Your task to perform on an android device: check google app version Image 0: 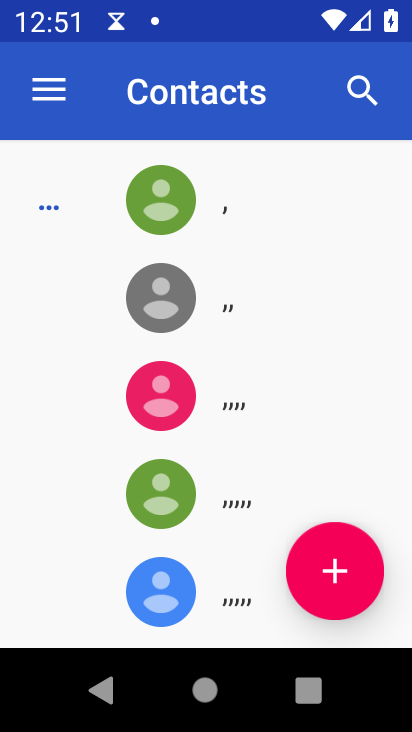
Step 0: press back button
Your task to perform on an android device: check google app version Image 1: 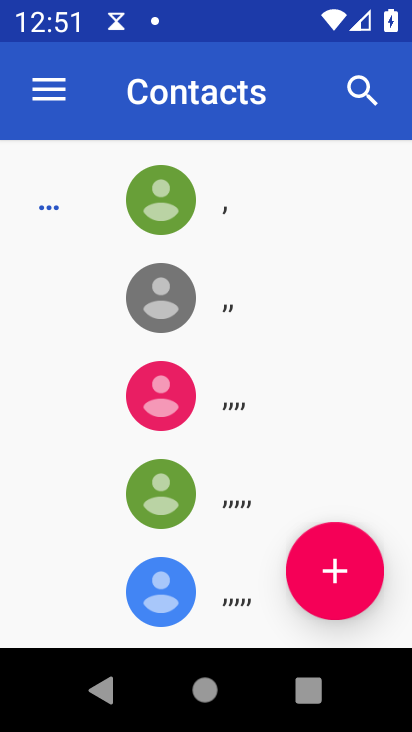
Step 1: press back button
Your task to perform on an android device: check google app version Image 2: 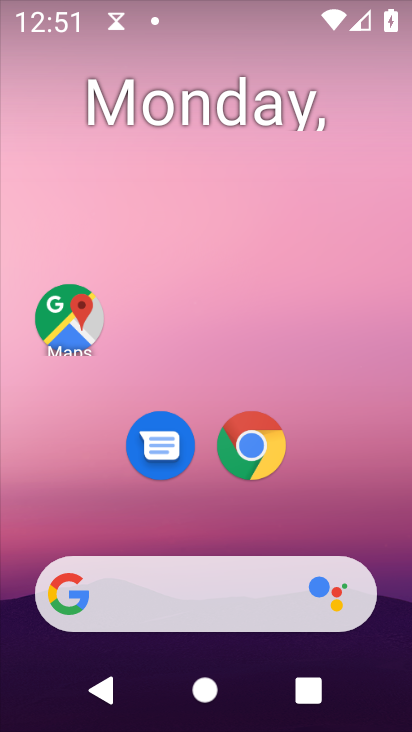
Step 2: drag from (378, 593) to (176, 117)
Your task to perform on an android device: check google app version Image 3: 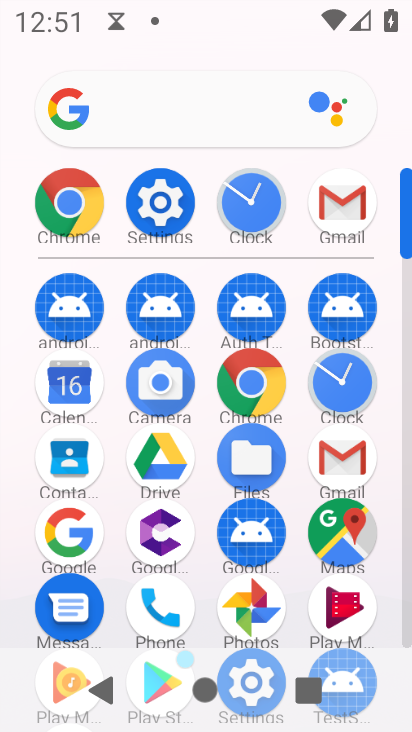
Step 3: click (72, 531)
Your task to perform on an android device: check google app version Image 4: 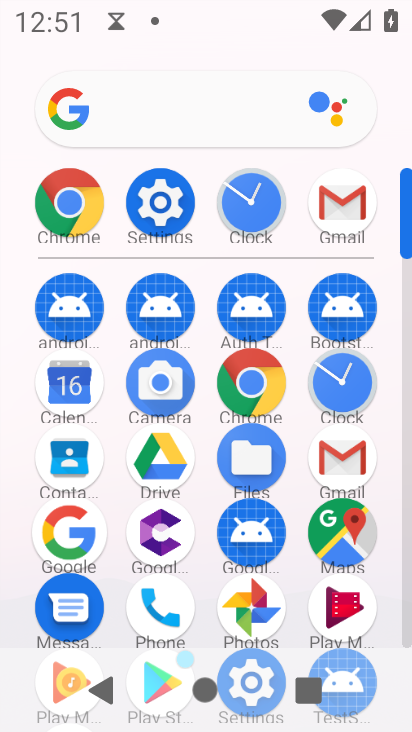
Step 4: click (73, 530)
Your task to perform on an android device: check google app version Image 5: 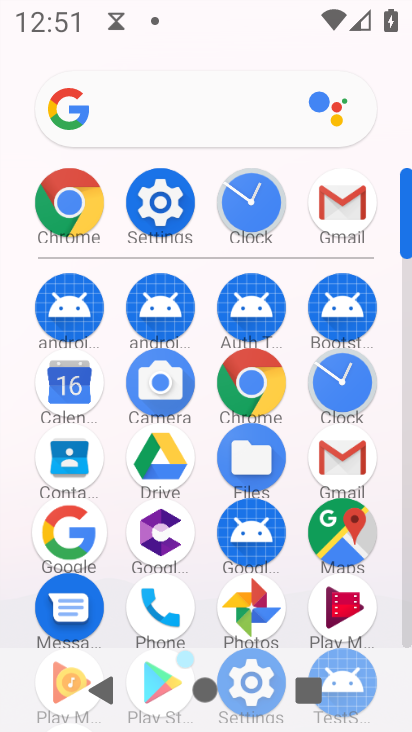
Step 5: click (74, 529)
Your task to perform on an android device: check google app version Image 6: 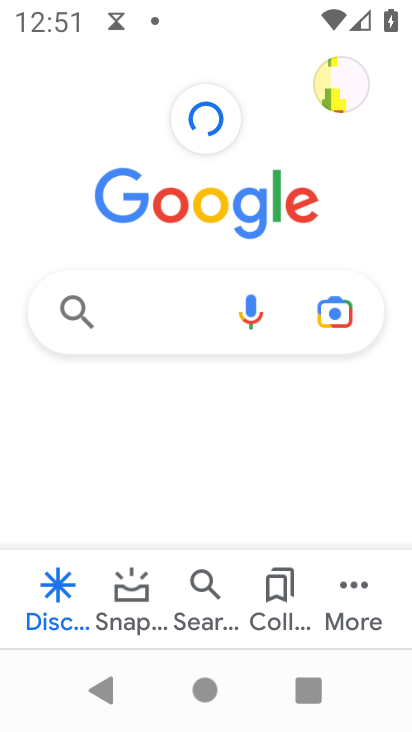
Step 6: click (341, 592)
Your task to perform on an android device: check google app version Image 7: 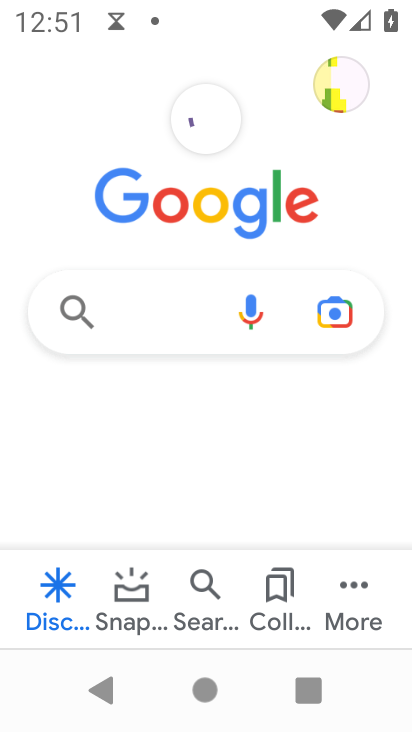
Step 7: click (342, 591)
Your task to perform on an android device: check google app version Image 8: 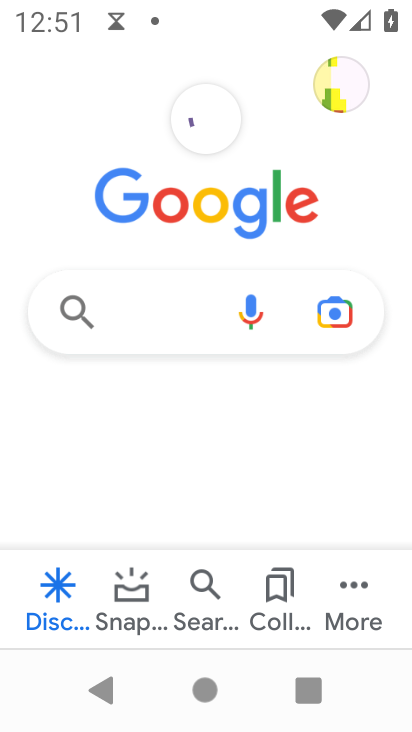
Step 8: click (346, 586)
Your task to perform on an android device: check google app version Image 9: 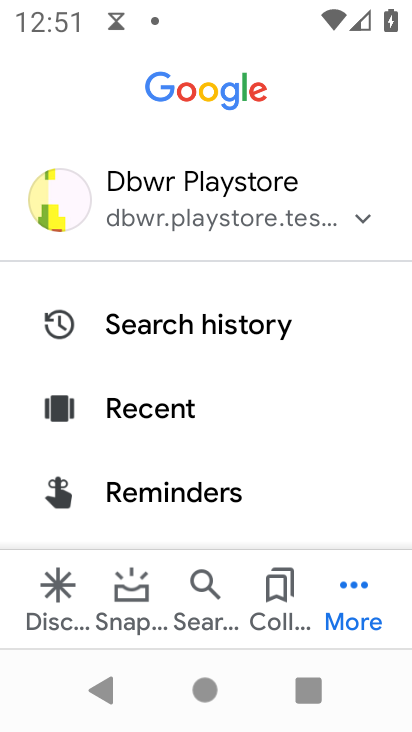
Step 9: click (345, 581)
Your task to perform on an android device: check google app version Image 10: 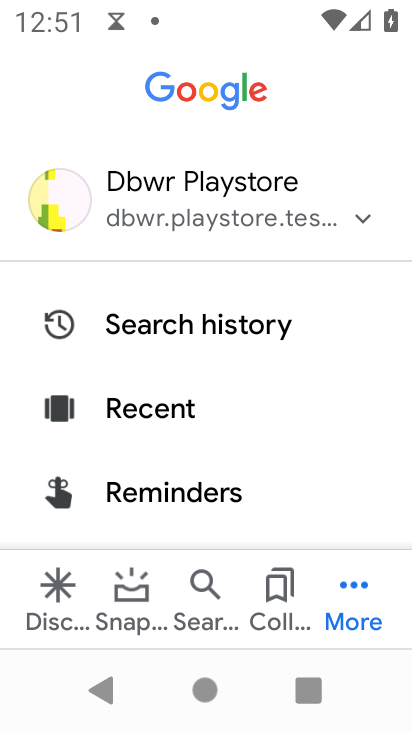
Step 10: drag from (262, 434) to (242, 157)
Your task to perform on an android device: check google app version Image 11: 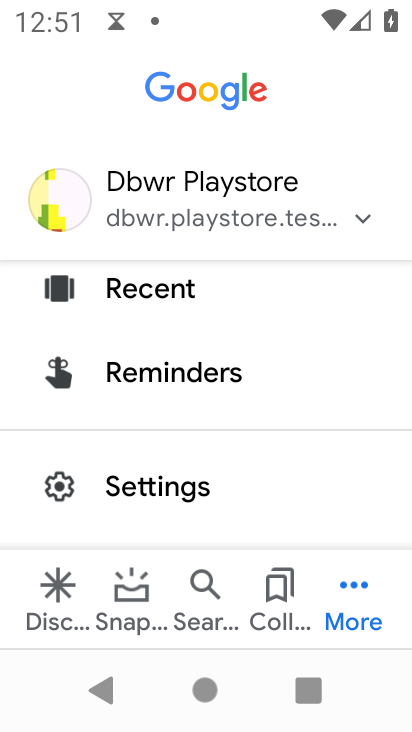
Step 11: drag from (239, 312) to (287, 60)
Your task to perform on an android device: check google app version Image 12: 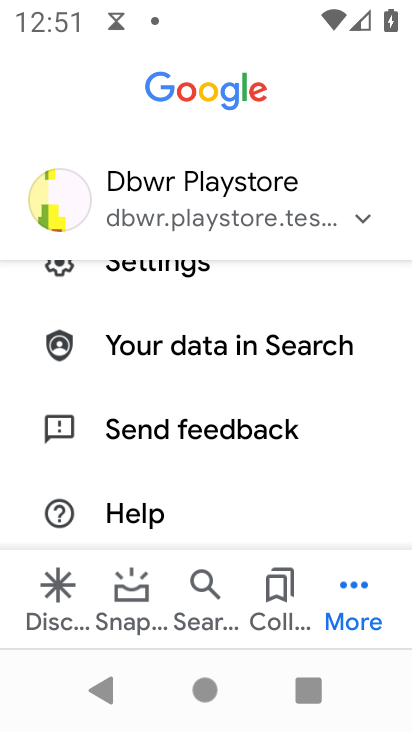
Step 12: drag from (235, 365) to (267, 202)
Your task to perform on an android device: check google app version Image 13: 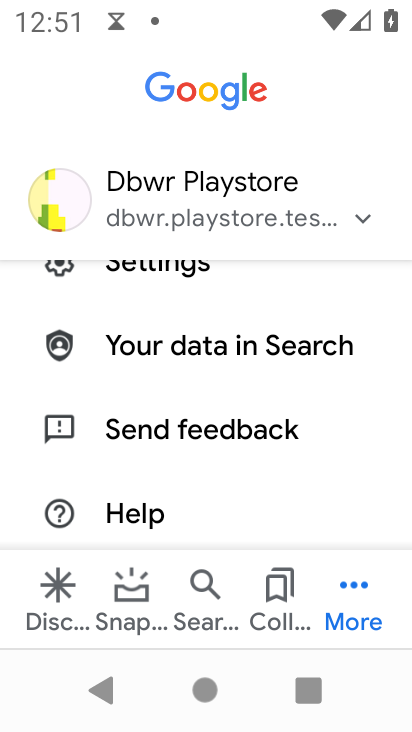
Step 13: drag from (255, 339) to (291, 157)
Your task to perform on an android device: check google app version Image 14: 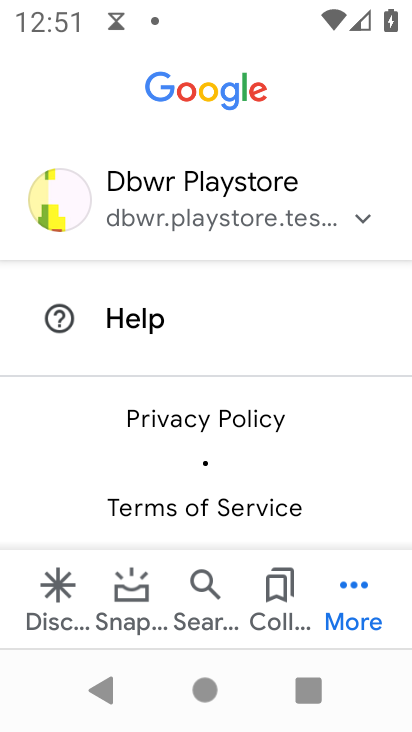
Step 14: drag from (204, 308) to (219, 542)
Your task to perform on an android device: check google app version Image 15: 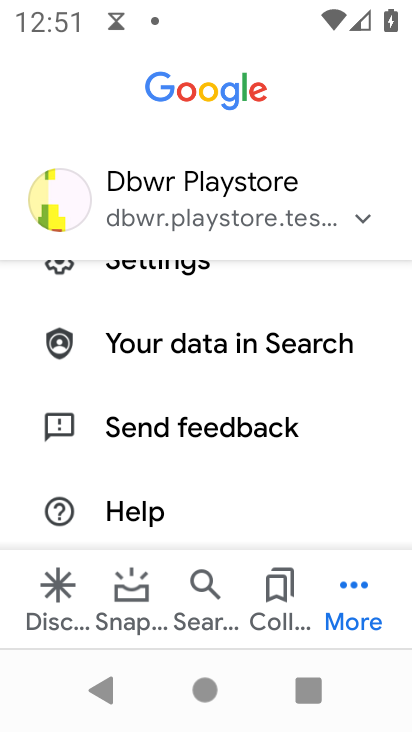
Step 15: drag from (198, 362) to (198, 491)
Your task to perform on an android device: check google app version Image 16: 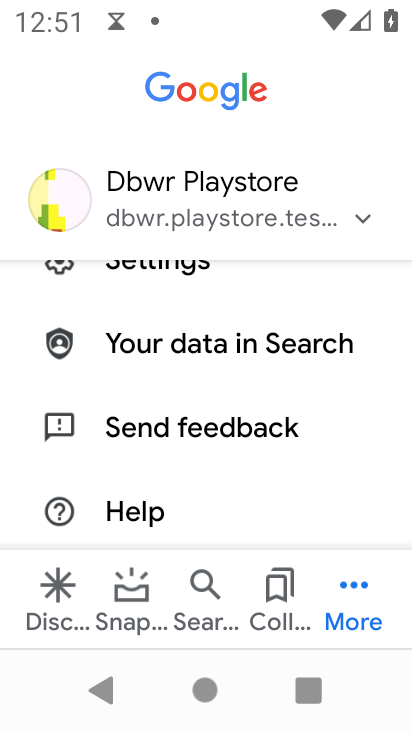
Step 16: drag from (206, 288) to (280, 545)
Your task to perform on an android device: check google app version Image 17: 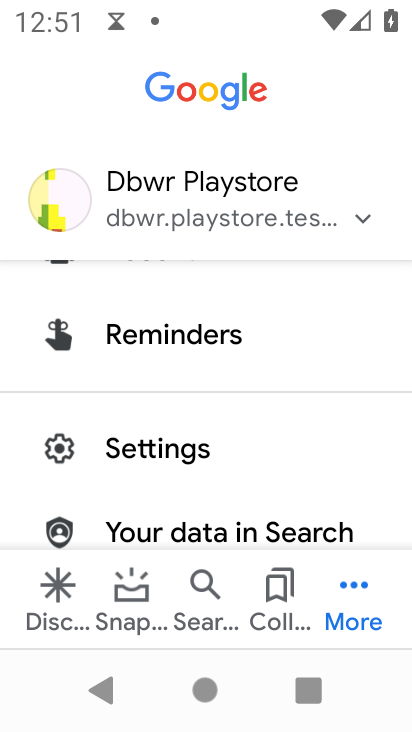
Step 17: drag from (314, 320) to (371, 499)
Your task to perform on an android device: check google app version Image 18: 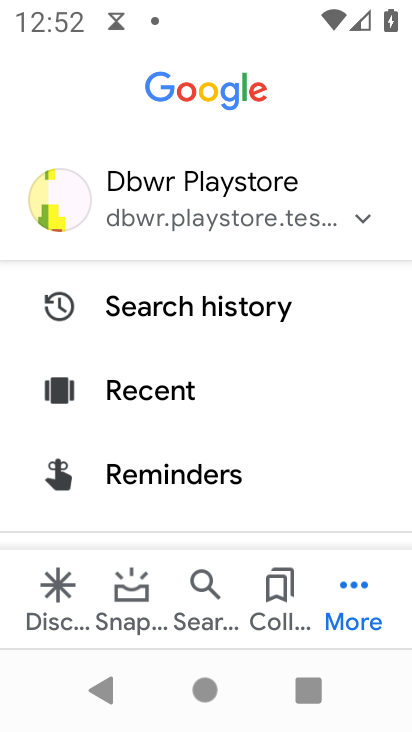
Step 18: drag from (212, 341) to (252, 575)
Your task to perform on an android device: check google app version Image 19: 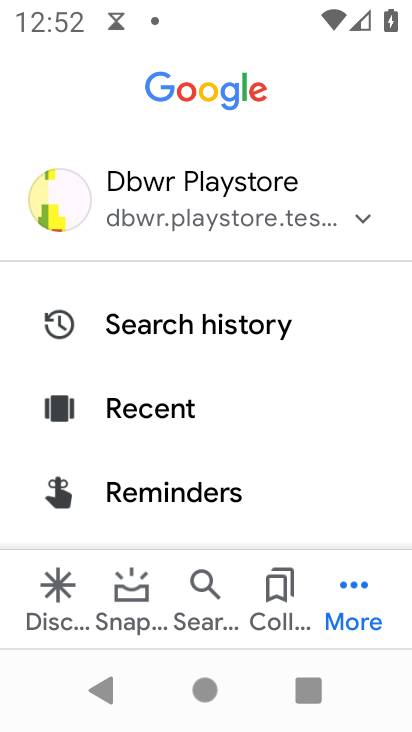
Step 19: drag from (257, 373) to (299, 508)
Your task to perform on an android device: check google app version Image 20: 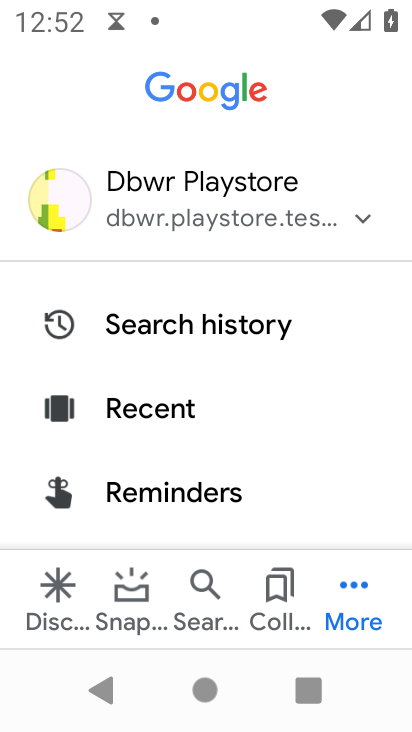
Step 20: drag from (315, 564) to (277, 345)
Your task to perform on an android device: check google app version Image 21: 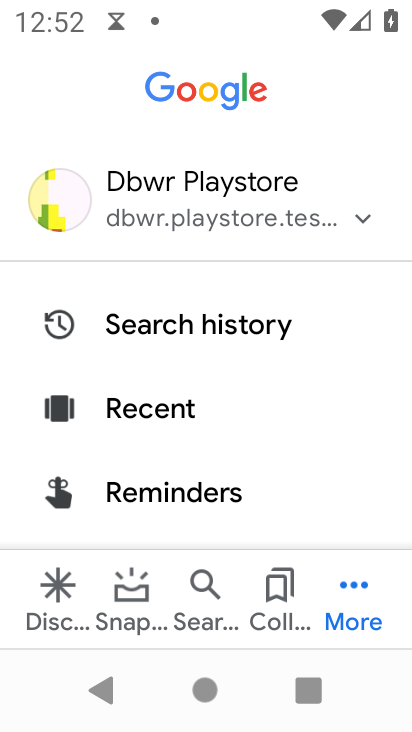
Step 21: drag from (312, 475) to (247, 279)
Your task to perform on an android device: check google app version Image 22: 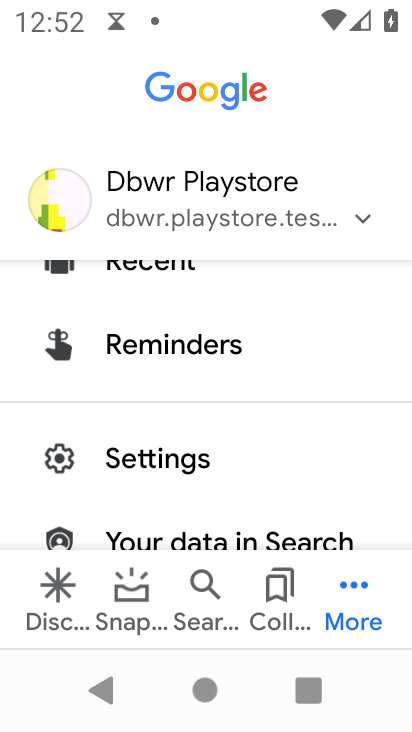
Step 22: drag from (273, 478) to (245, 283)
Your task to perform on an android device: check google app version Image 23: 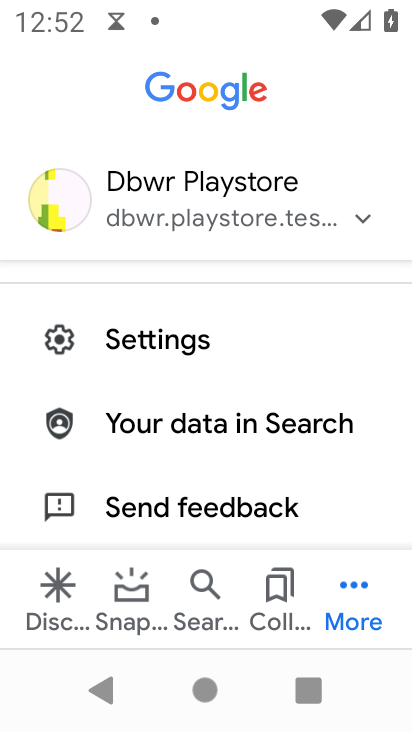
Step 23: click (339, 584)
Your task to perform on an android device: check google app version Image 24: 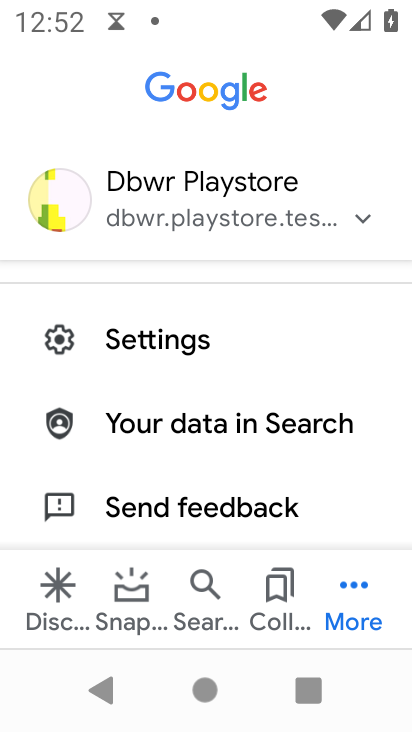
Step 24: click (339, 585)
Your task to perform on an android device: check google app version Image 25: 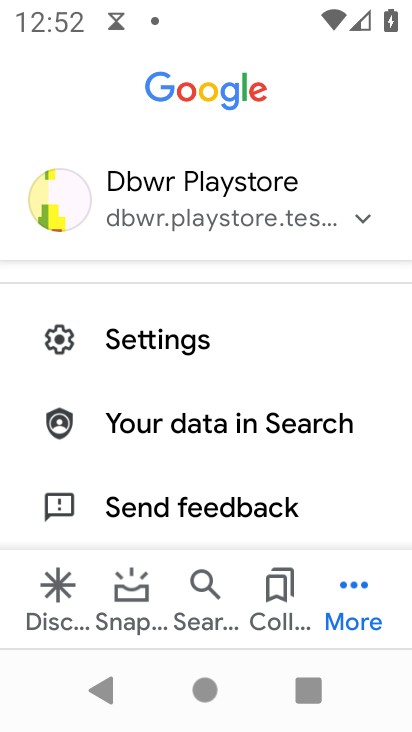
Step 25: click (341, 587)
Your task to perform on an android device: check google app version Image 26: 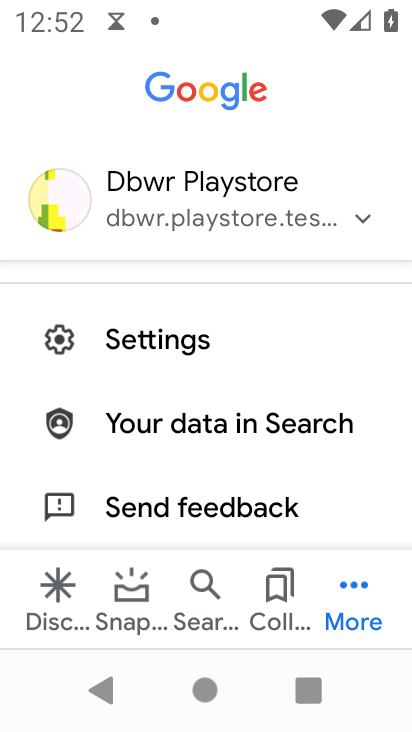
Step 26: click (343, 582)
Your task to perform on an android device: check google app version Image 27: 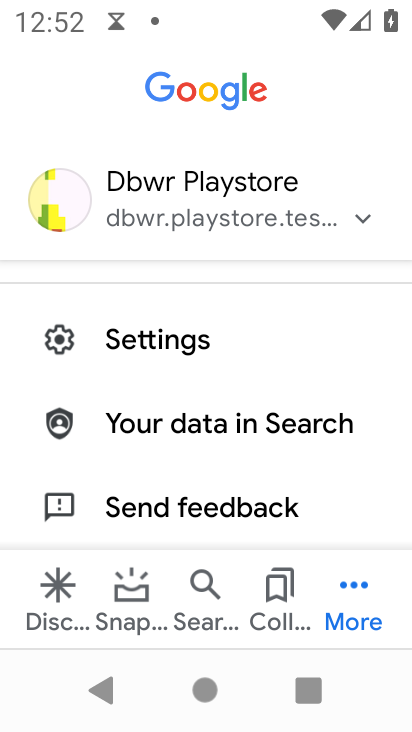
Step 27: click (342, 575)
Your task to perform on an android device: check google app version Image 28: 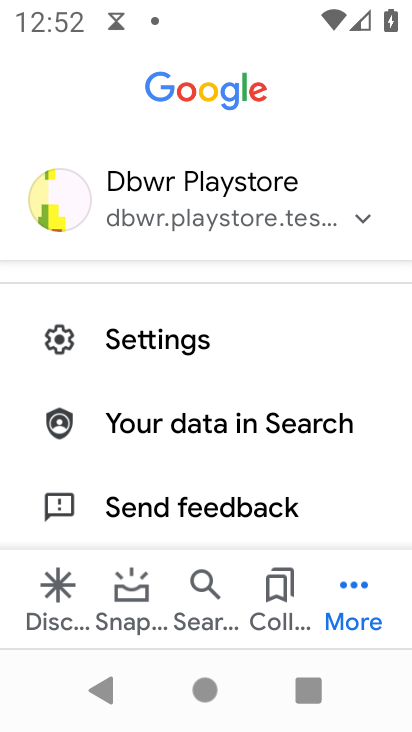
Step 28: click (356, 584)
Your task to perform on an android device: check google app version Image 29: 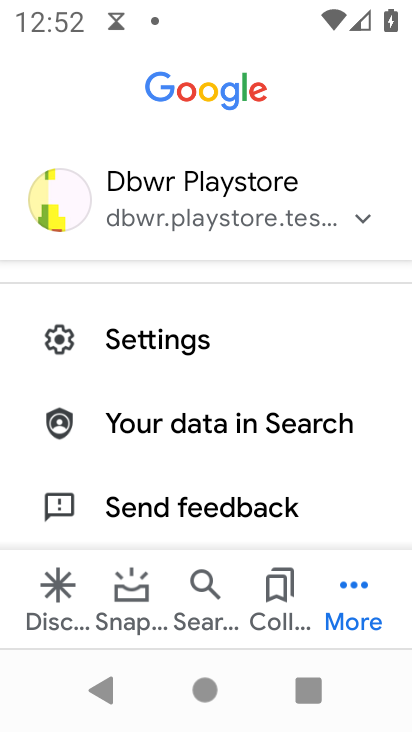
Step 29: click (356, 584)
Your task to perform on an android device: check google app version Image 30: 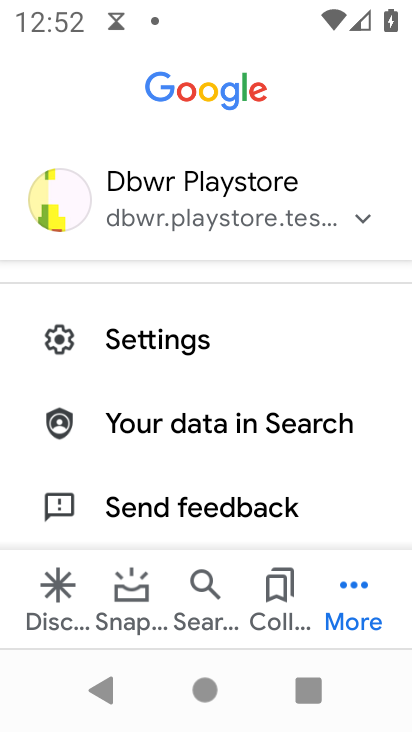
Step 30: click (356, 584)
Your task to perform on an android device: check google app version Image 31: 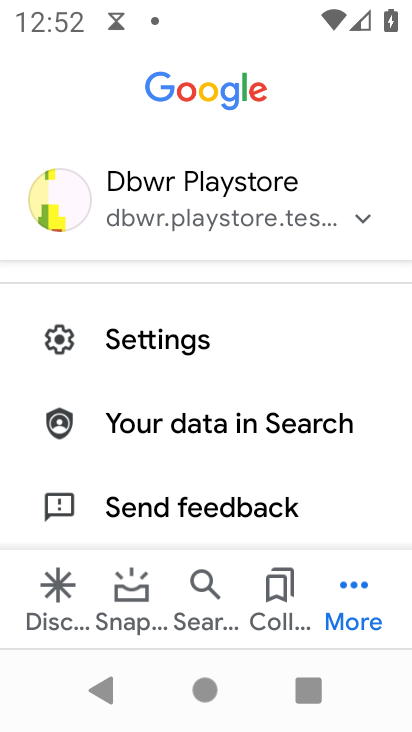
Step 31: click (356, 584)
Your task to perform on an android device: check google app version Image 32: 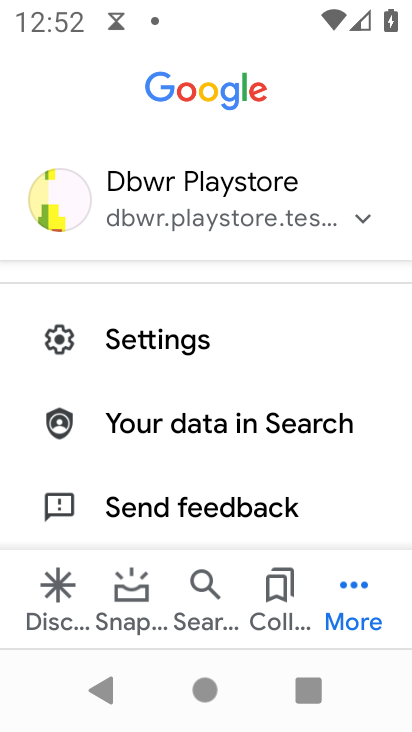
Step 32: click (360, 584)
Your task to perform on an android device: check google app version Image 33: 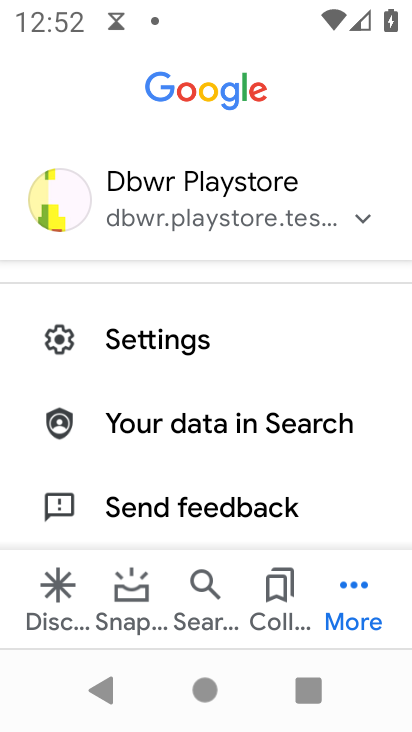
Step 33: click (361, 584)
Your task to perform on an android device: check google app version Image 34: 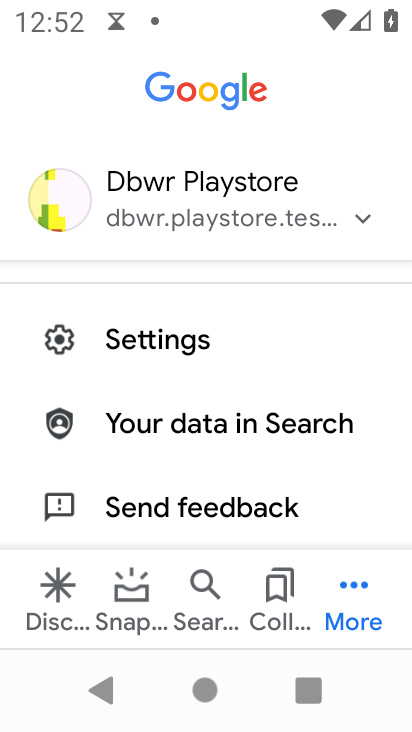
Step 34: click (133, 337)
Your task to perform on an android device: check google app version Image 35: 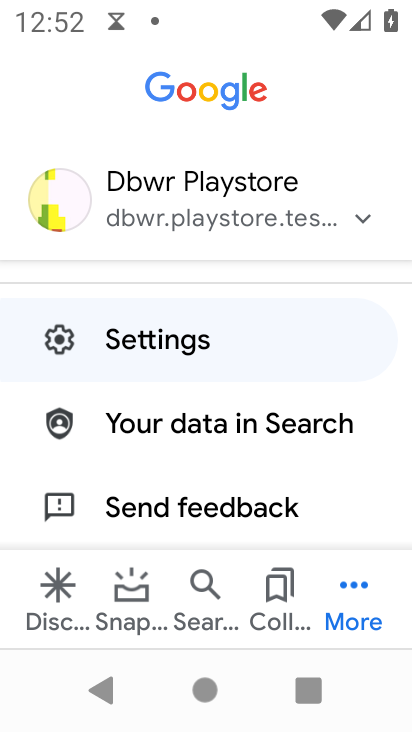
Step 35: click (134, 336)
Your task to perform on an android device: check google app version Image 36: 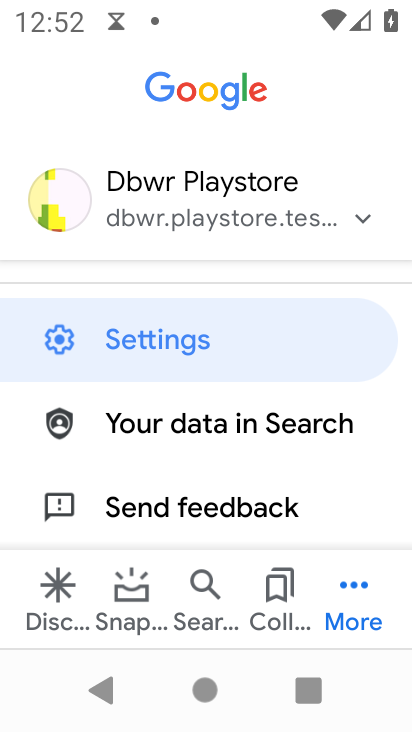
Step 36: click (137, 338)
Your task to perform on an android device: check google app version Image 37: 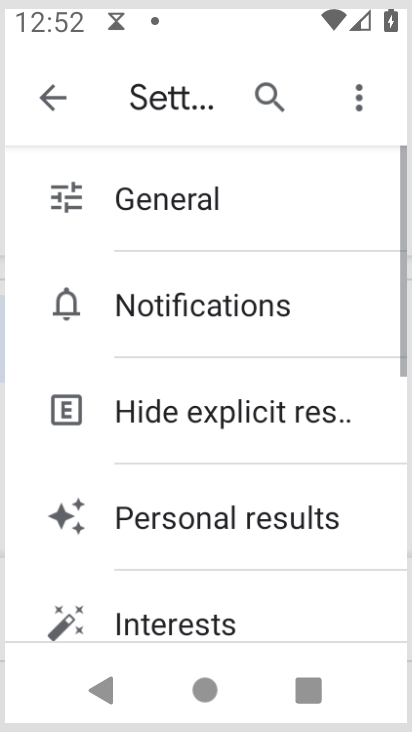
Step 37: click (138, 343)
Your task to perform on an android device: check google app version Image 38: 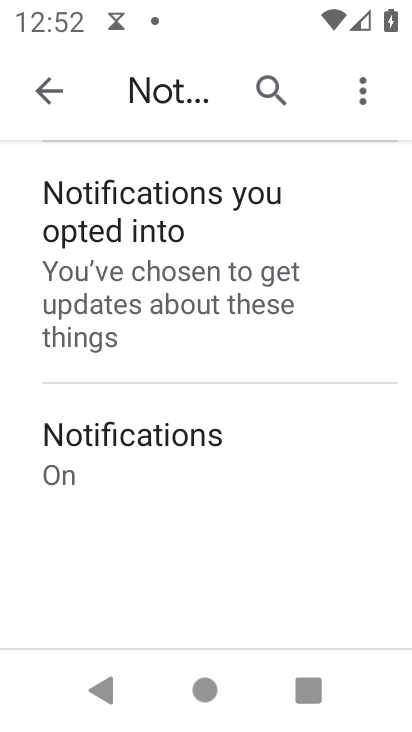
Step 38: task complete